Your task to perform on an android device: change alarm snooze length Image 0: 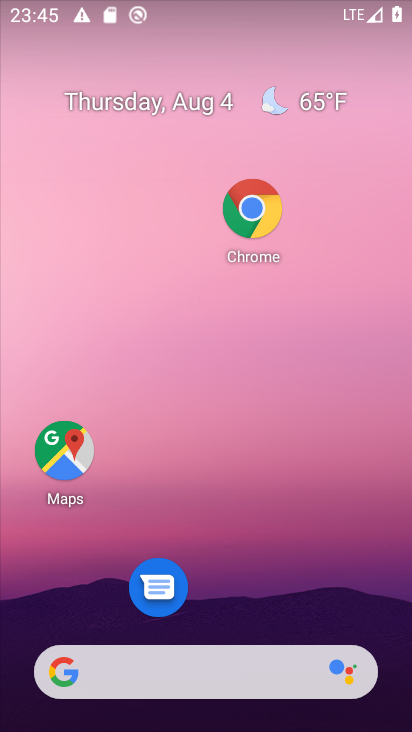
Step 0: drag from (227, 585) to (259, 182)
Your task to perform on an android device: change alarm snooze length Image 1: 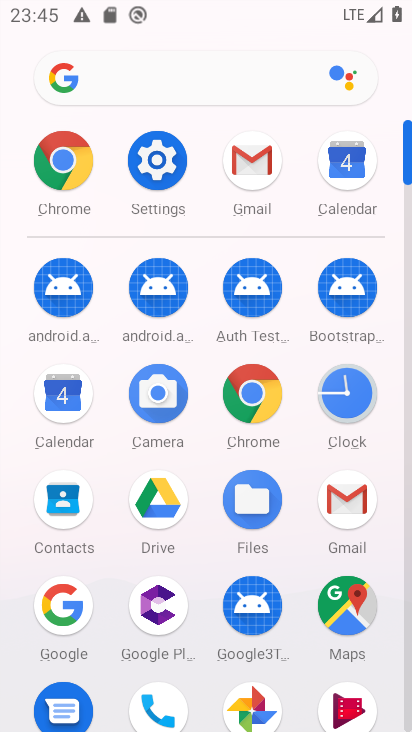
Step 1: click (362, 389)
Your task to perform on an android device: change alarm snooze length Image 2: 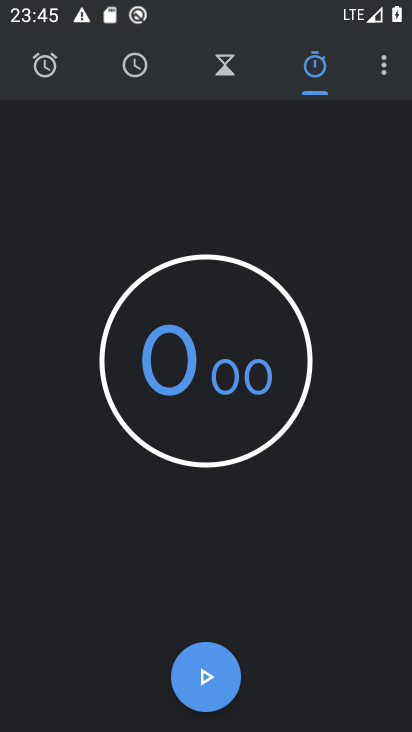
Step 2: click (384, 58)
Your task to perform on an android device: change alarm snooze length Image 3: 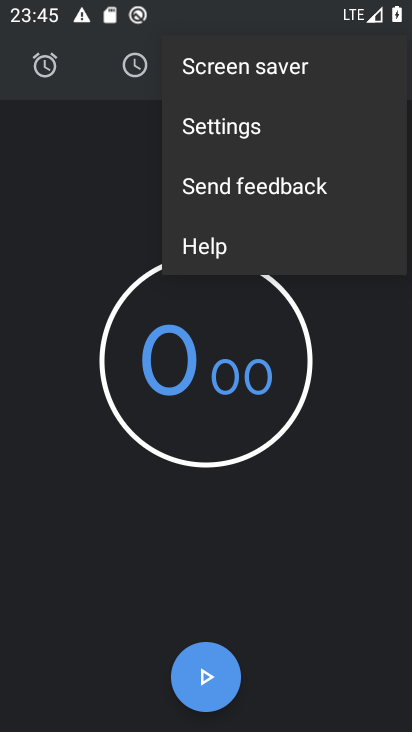
Step 3: click (245, 125)
Your task to perform on an android device: change alarm snooze length Image 4: 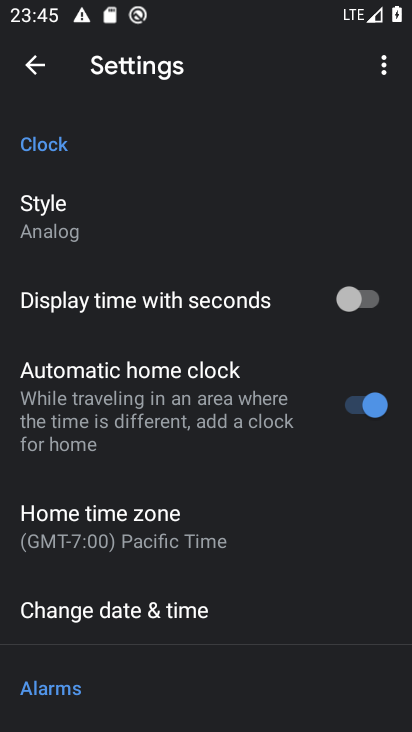
Step 4: drag from (153, 628) to (214, 240)
Your task to perform on an android device: change alarm snooze length Image 5: 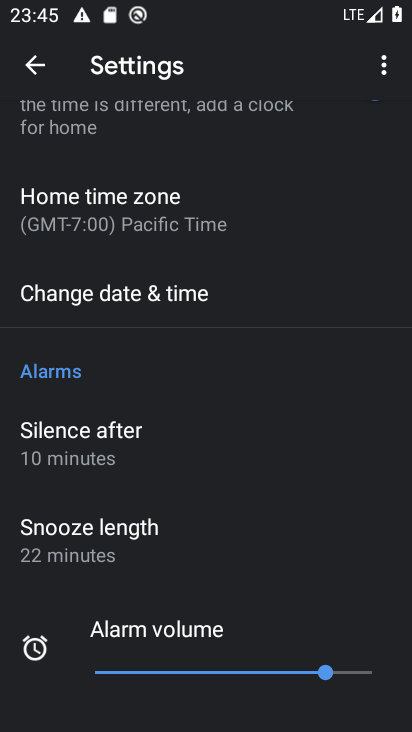
Step 5: click (90, 539)
Your task to perform on an android device: change alarm snooze length Image 6: 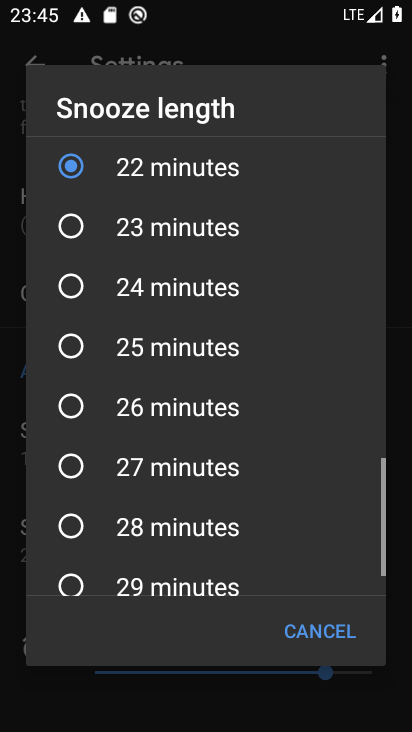
Step 6: drag from (128, 566) to (205, 333)
Your task to perform on an android device: change alarm snooze length Image 7: 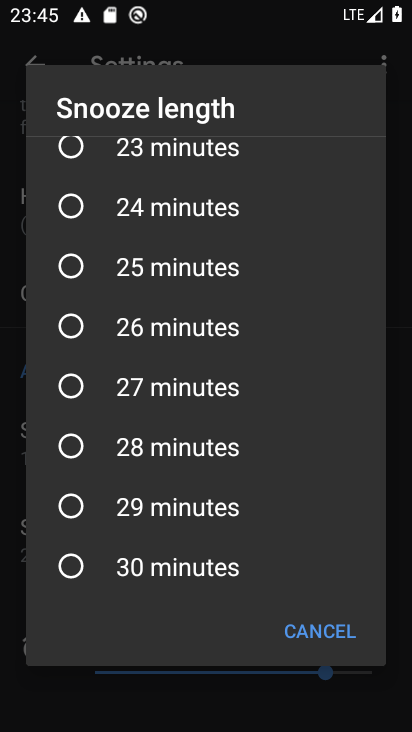
Step 7: click (105, 569)
Your task to perform on an android device: change alarm snooze length Image 8: 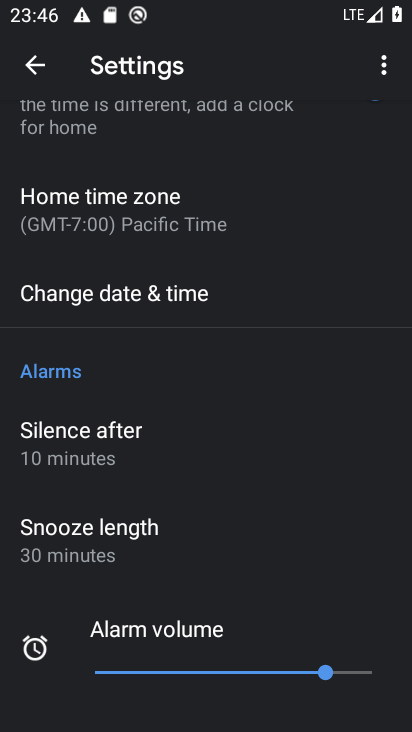
Step 8: task complete